Your task to perform on an android device: Open Youtube and go to the subscriptions tab Image 0: 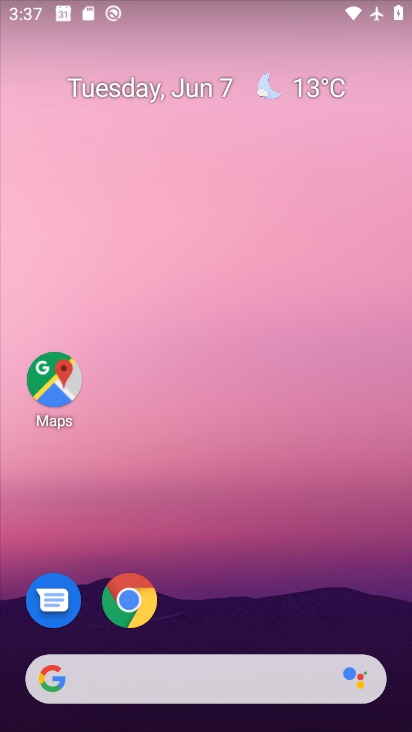
Step 0: drag from (247, 479) to (189, 129)
Your task to perform on an android device: Open Youtube and go to the subscriptions tab Image 1: 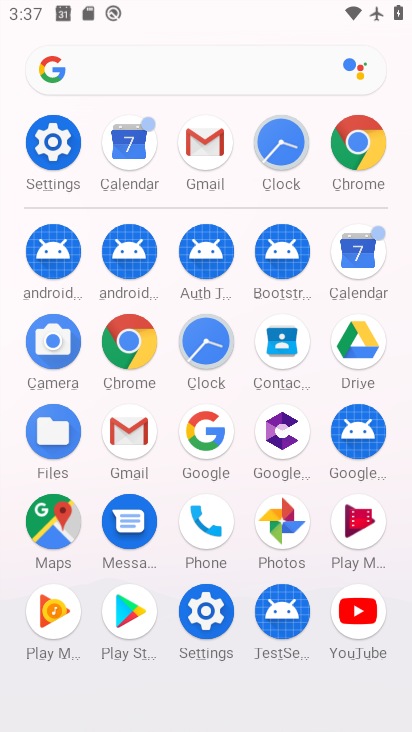
Step 1: click (363, 616)
Your task to perform on an android device: Open Youtube and go to the subscriptions tab Image 2: 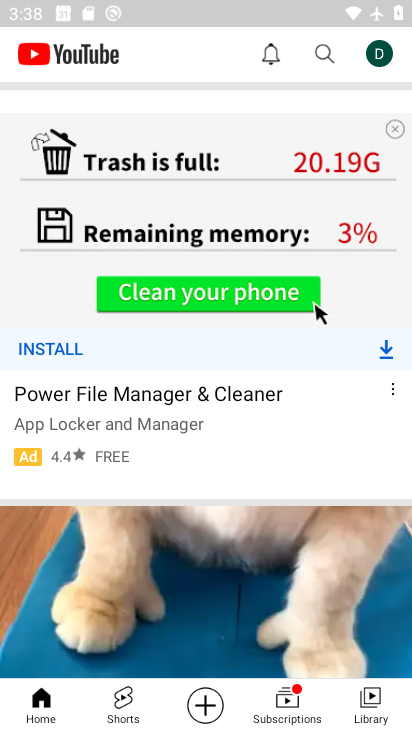
Step 2: click (294, 695)
Your task to perform on an android device: Open Youtube and go to the subscriptions tab Image 3: 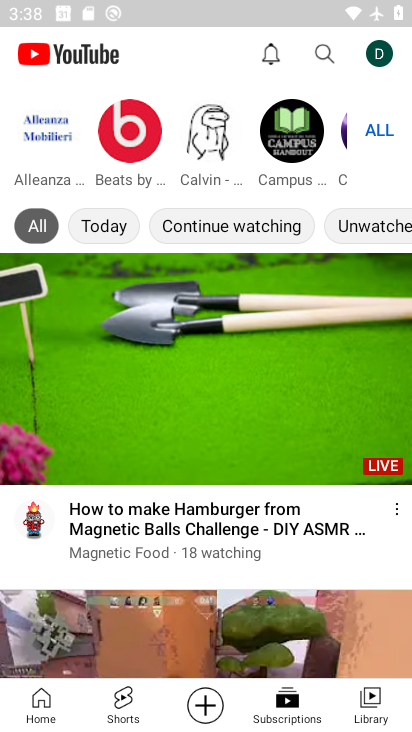
Step 3: task complete